Your task to perform on an android device: turn off sleep mode Image 0: 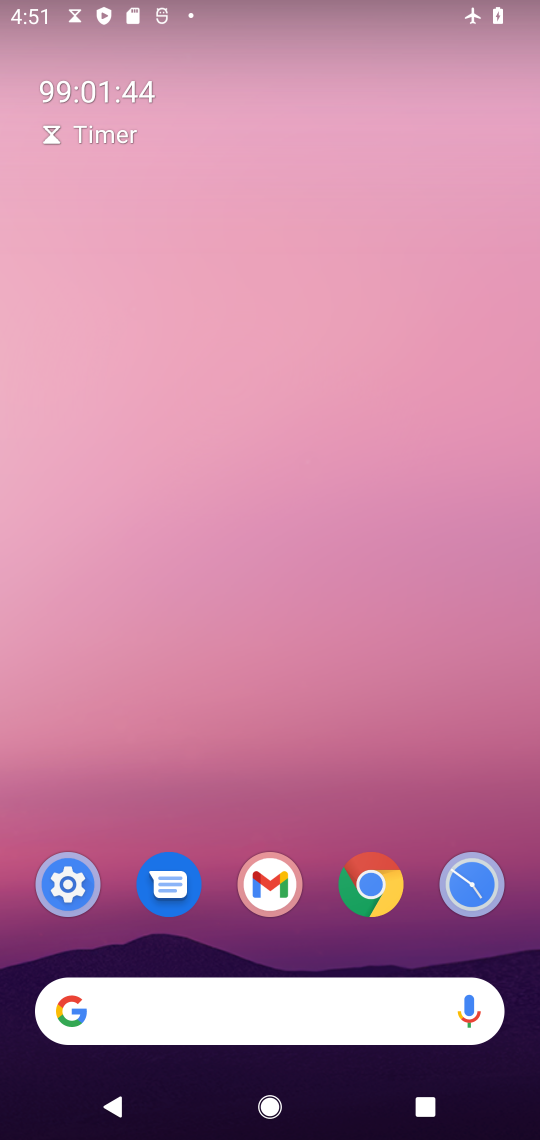
Step 0: drag from (175, 929) to (197, 371)
Your task to perform on an android device: turn off sleep mode Image 1: 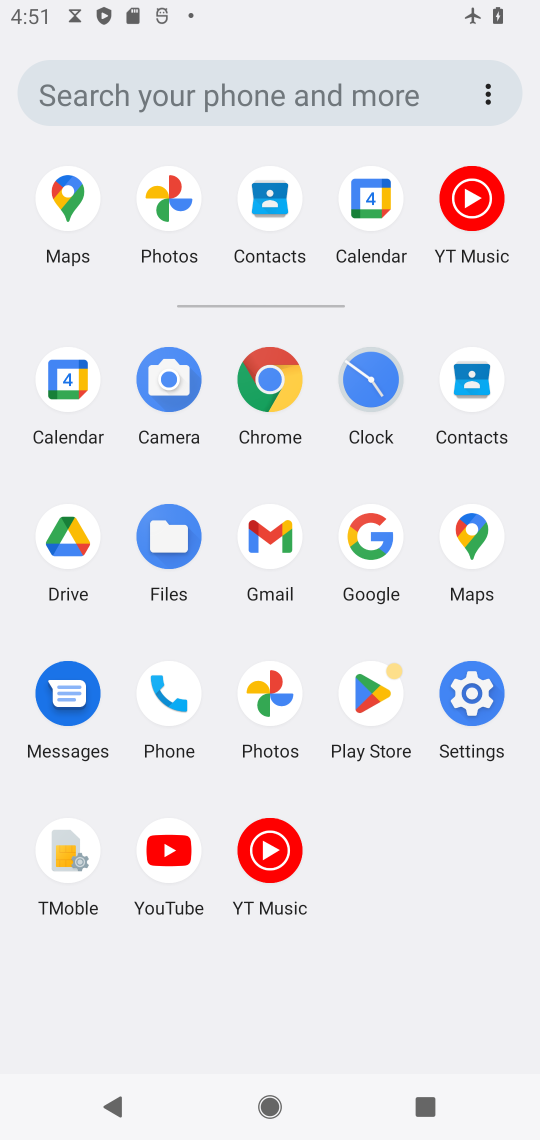
Step 1: click (470, 668)
Your task to perform on an android device: turn off sleep mode Image 2: 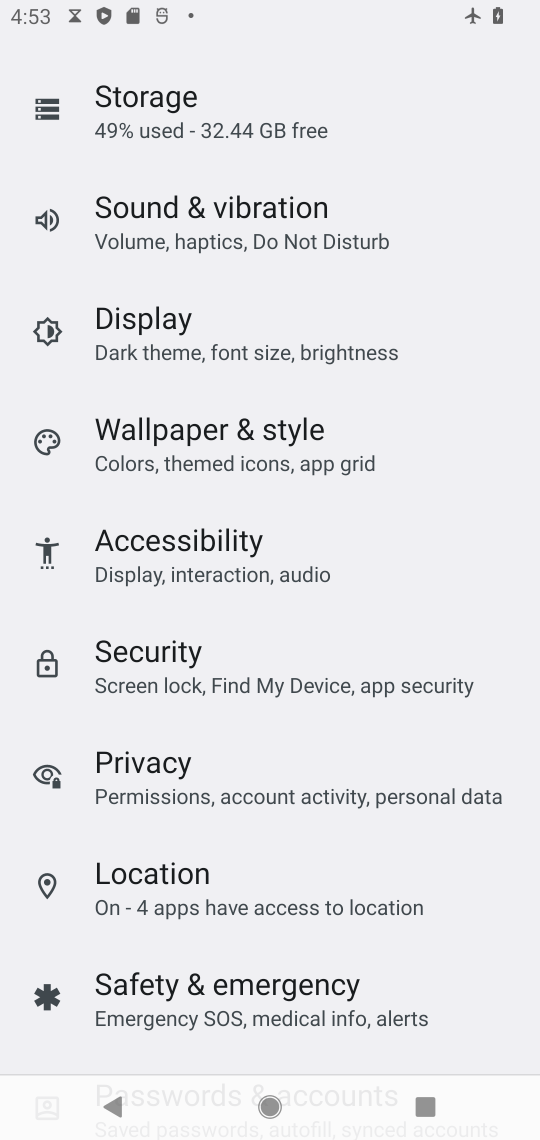
Step 2: task complete